Your task to perform on an android device: Open network settings Image 0: 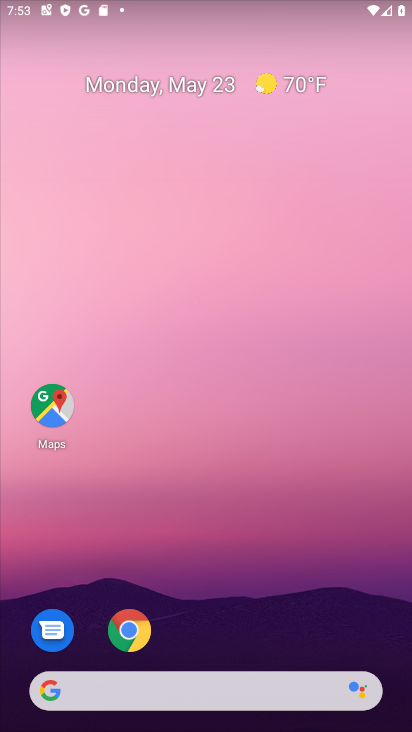
Step 0: drag from (286, 513) to (316, 109)
Your task to perform on an android device: Open network settings Image 1: 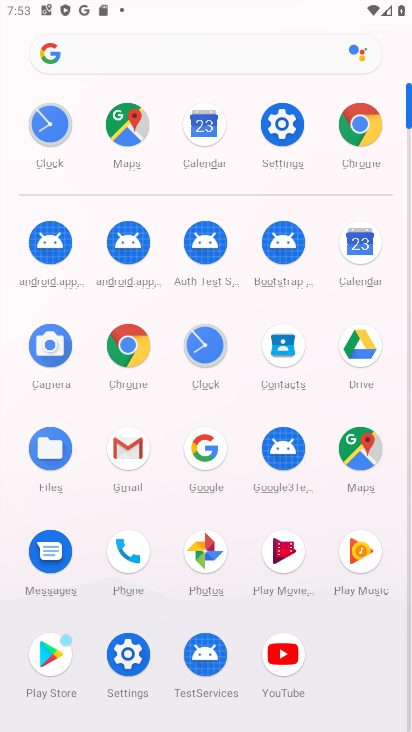
Step 1: click (295, 124)
Your task to perform on an android device: Open network settings Image 2: 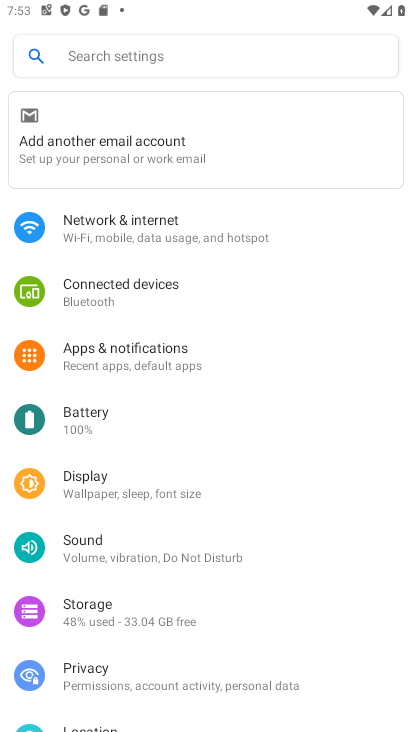
Step 2: click (178, 220)
Your task to perform on an android device: Open network settings Image 3: 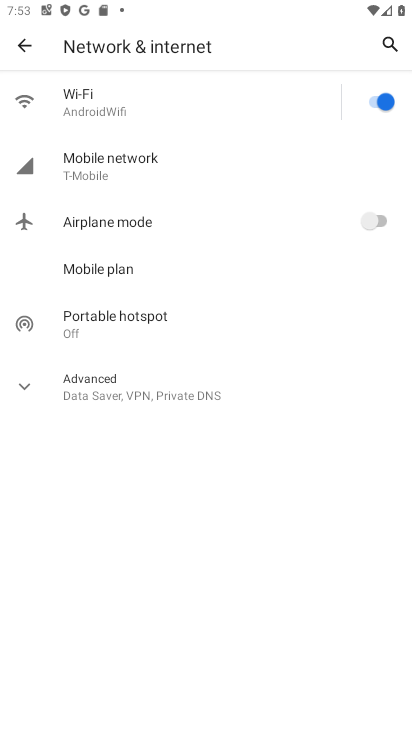
Step 3: click (108, 403)
Your task to perform on an android device: Open network settings Image 4: 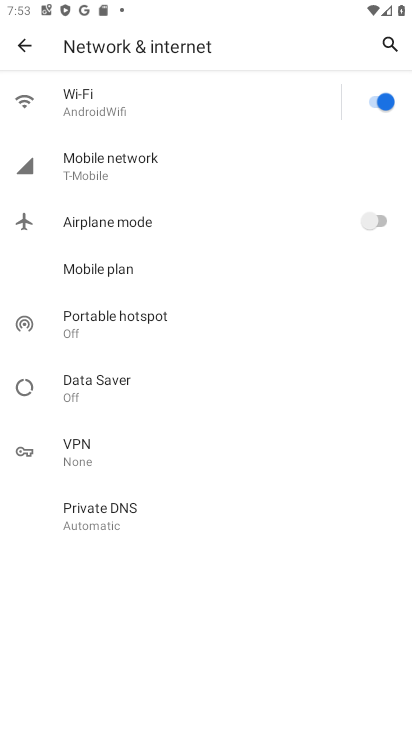
Step 4: task complete